Your task to perform on an android device: set the timer Image 0: 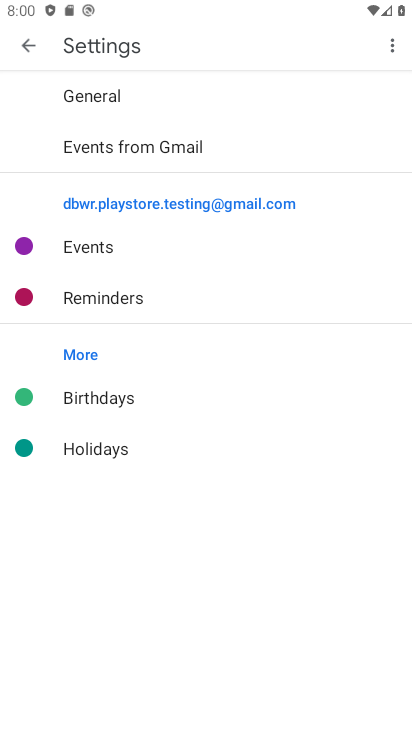
Step 0: press home button
Your task to perform on an android device: set the timer Image 1: 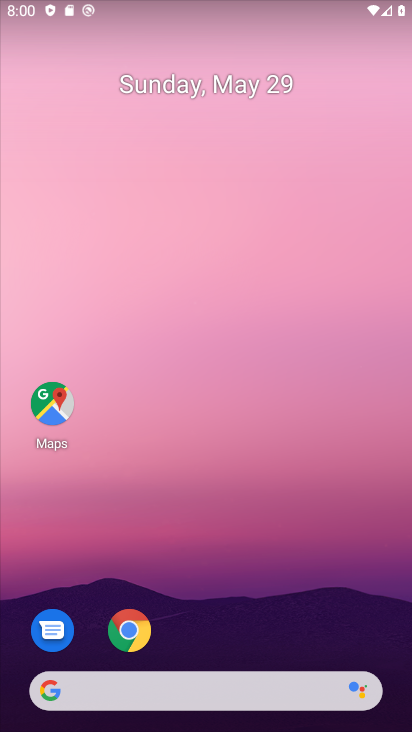
Step 1: drag from (313, 592) to (384, 64)
Your task to perform on an android device: set the timer Image 2: 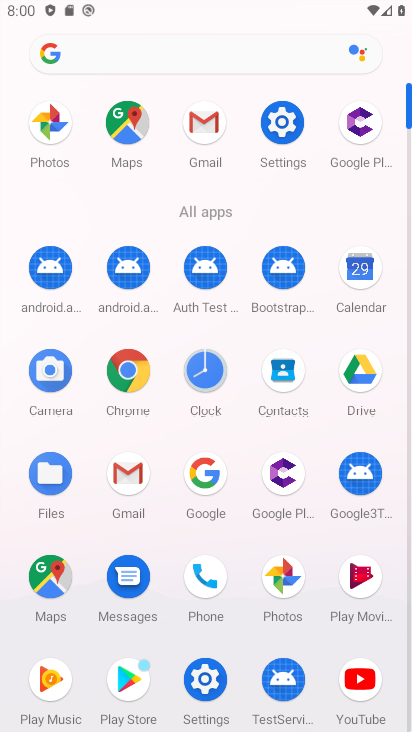
Step 2: click (208, 367)
Your task to perform on an android device: set the timer Image 3: 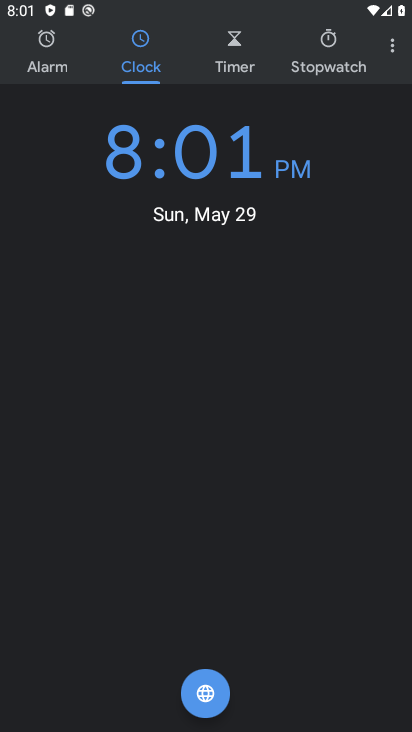
Step 3: click (238, 25)
Your task to perform on an android device: set the timer Image 4: 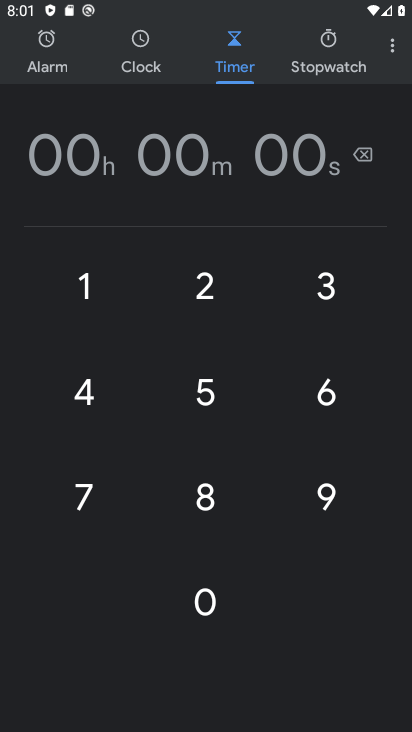
Step 4: click (87, 295)
Your task to perform on an android device: set the timer Image 5: 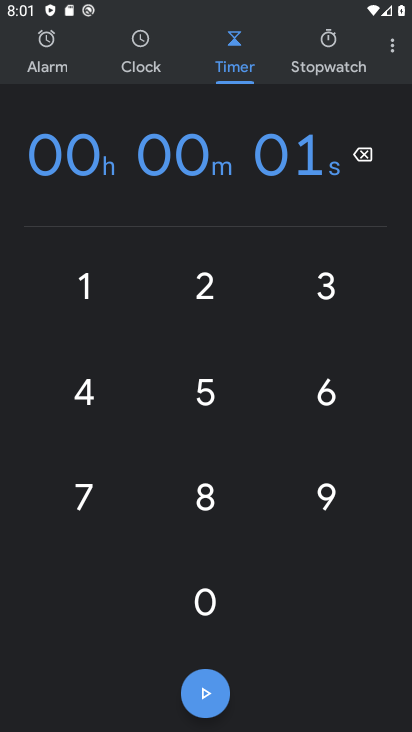
Step 5: click (203, 286)
Your task to perform on an android device: set the timer Image 6: 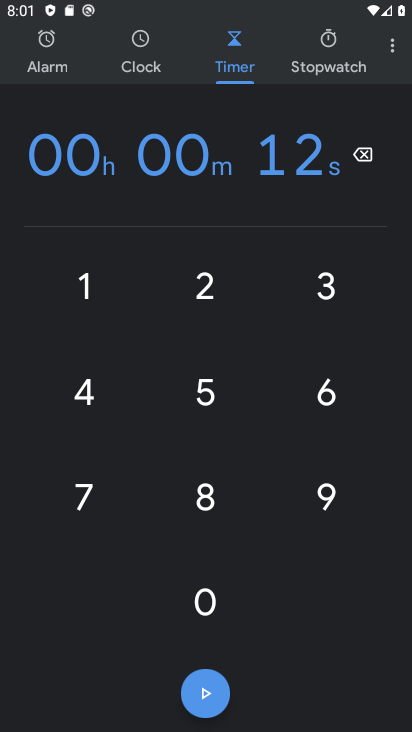
Step 6: click (198, 384)
Your task to perform on an android device: set the timer Image 7: 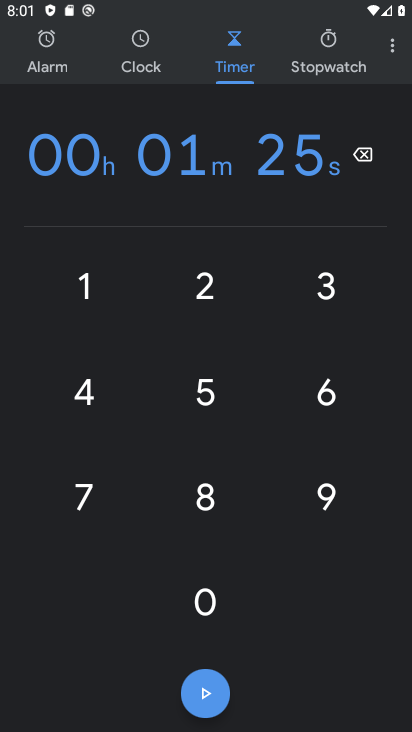
Step 7: click (332, 386)
Your task to perform on an android device: set the timer Image 8: 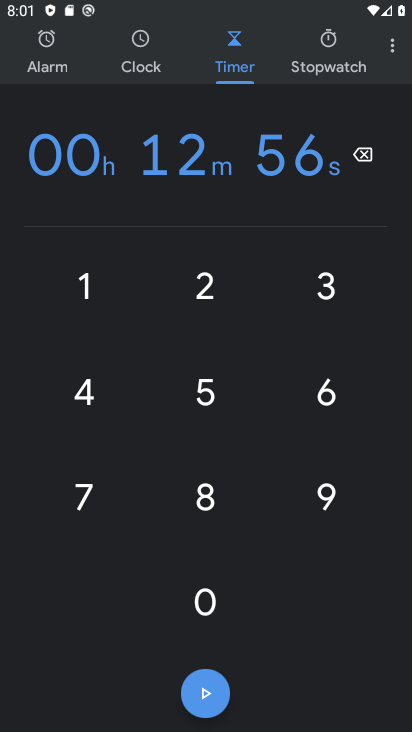
Step 8: click (207, 509)
Your task to perform on an android device: set the timer Image 9: 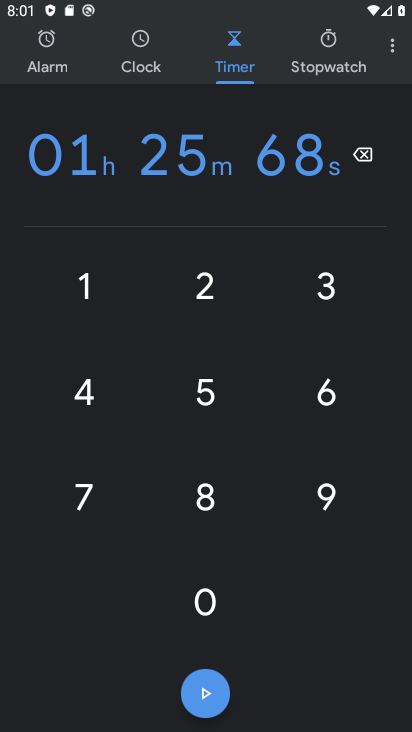
Step 9: click (207, 509)
Your task to perform on an android device: set the timer Image 10: 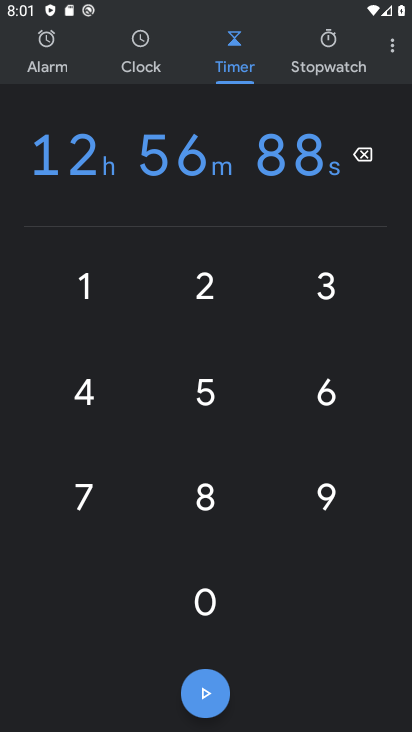
Step 10: click (221, 683)
Your task to perform on an android device: set the timer Image 11: 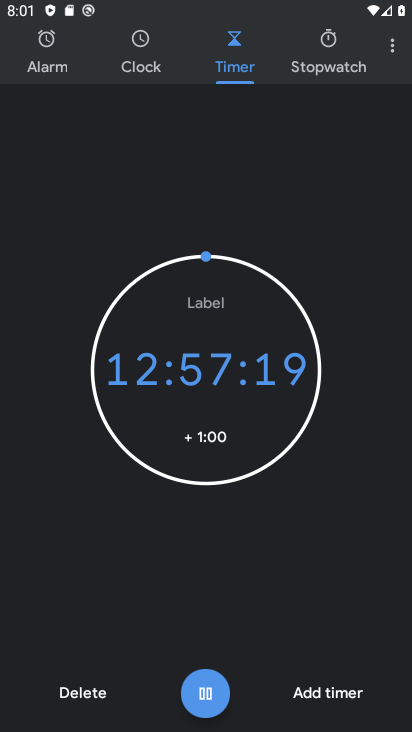
Step 11: task complete